Your task to perform on an android device: Go to internet settings Image 0: 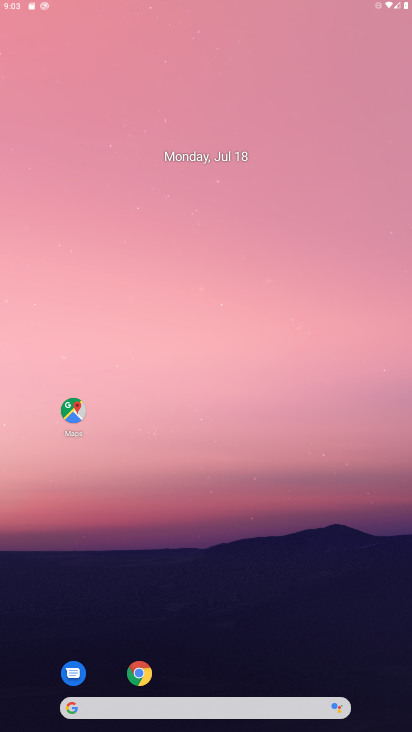
Step 0: press home button
Your task to perform on an android device: Go to internet settings Image 1: 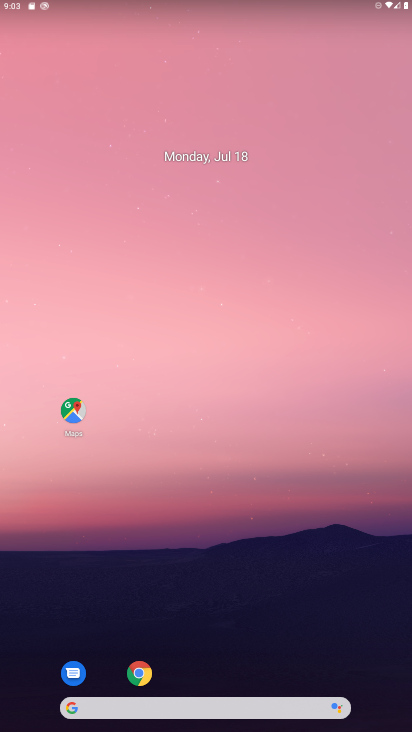
Step 1: drag from (218, 682) to (191, 31)
Your task to perform on an android device: Go to internet settings Image 2: 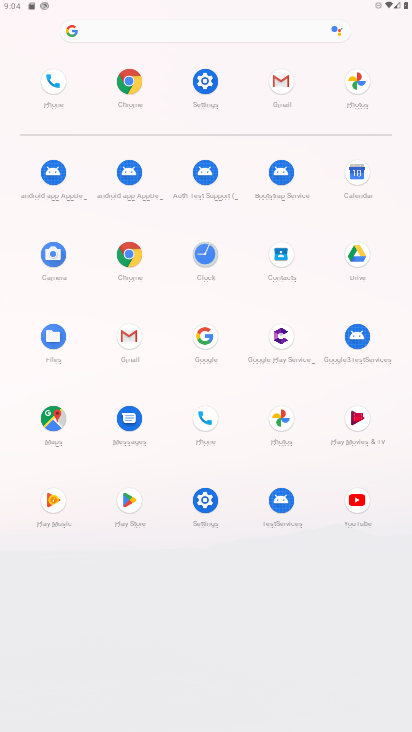
Step 2: click (208, 86)
Your task to perform on an android device: Go to internet settings Image 3: 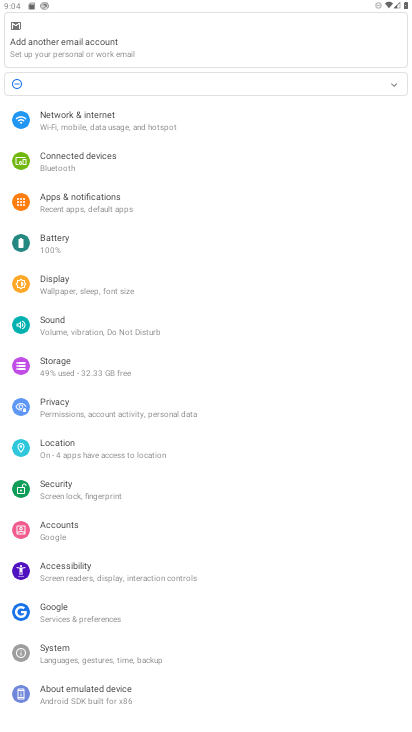
Step 3: click (78, 131)
Your task to perform on an android device: Go to internet settings Image 4: 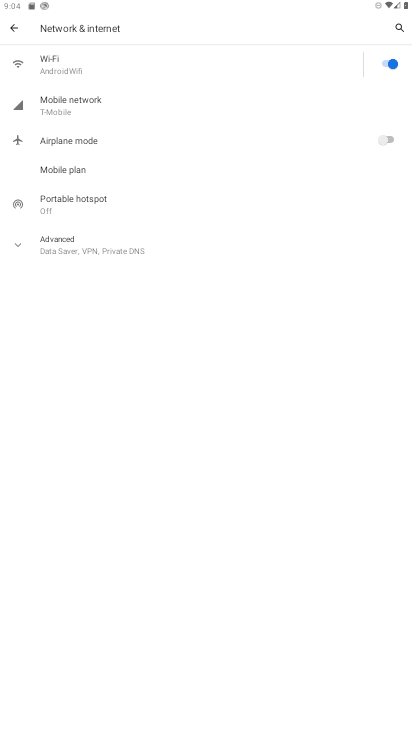
Step 4: task complete